Your task to perform on an android device: Open the stopwatch Image 0: 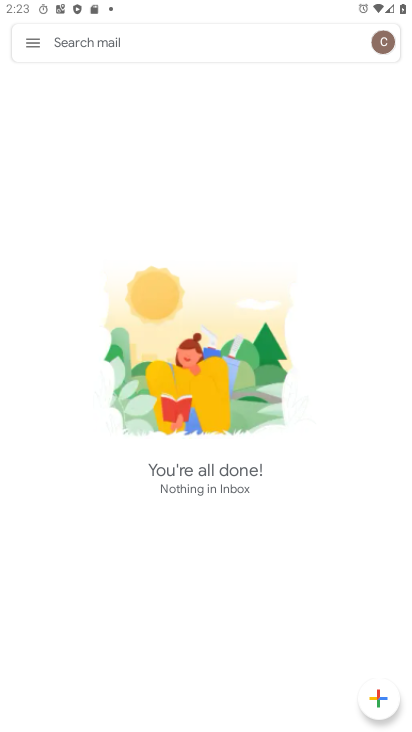
Step 0: press back button
Your task to perform on an android device: Open the stopwatch Image 1: 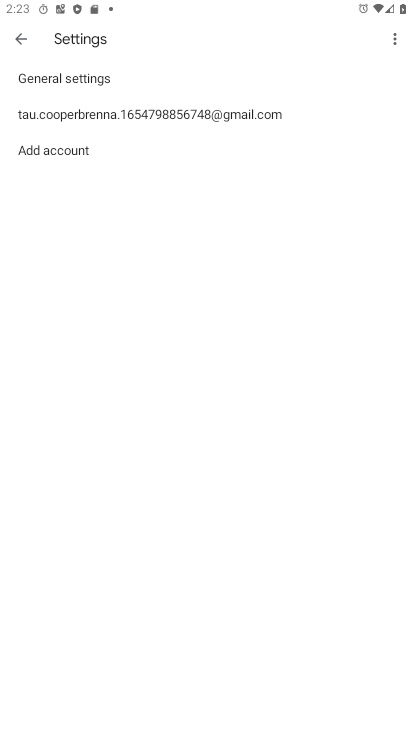
Step 1: press back button
Your task to perform on an android device: Open the stopwatch Image 2: 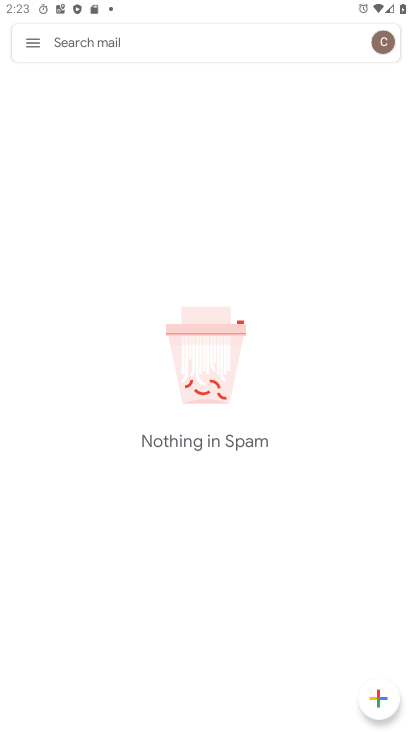
Step 2: press back button
Your task to perform on an android device: Open the stopwatch Image 3: 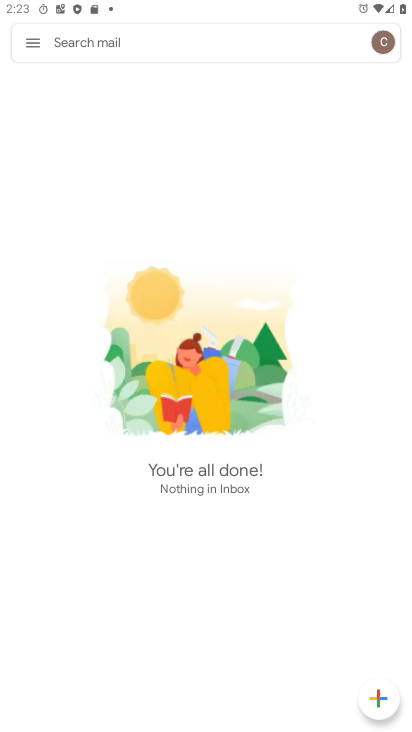
Step 3: press back button
Your task to perform on an android device: Open the stopwatch Image 4: 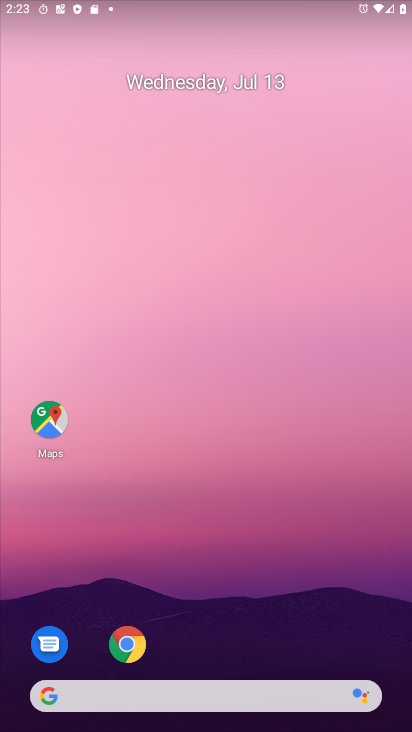
Step 4: drag from (229, 513) to (223, 18)
Your task to perform on an android device: Open the stopwatch Image 5: 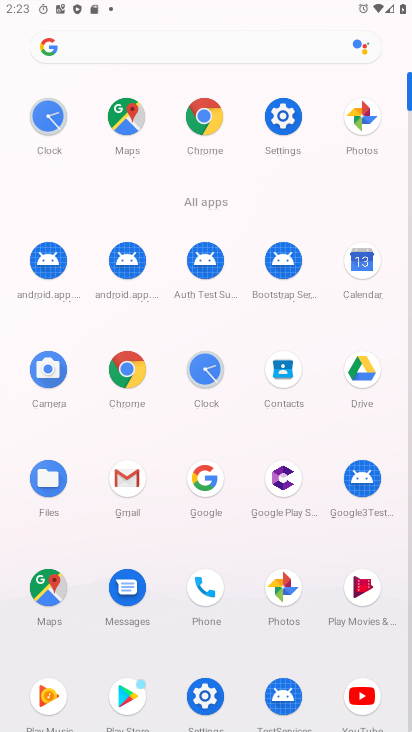
Step 5: click (210, 364)
Your task to perform on an android device: Open the stopwatch Image 6: 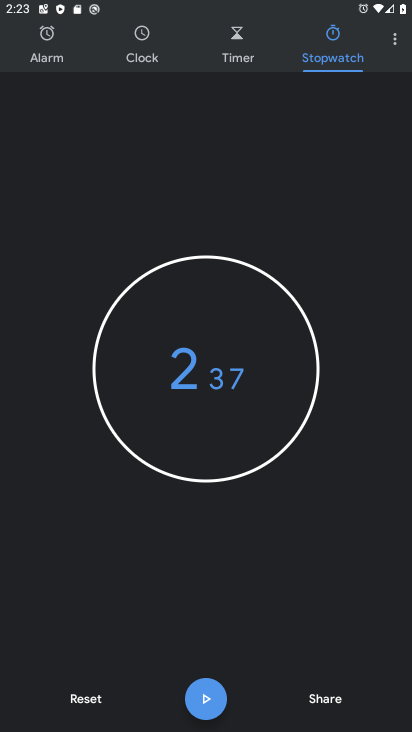
Step 6: task complete